Your task to perform on an android device: turn on bluetooth scan Image 0: 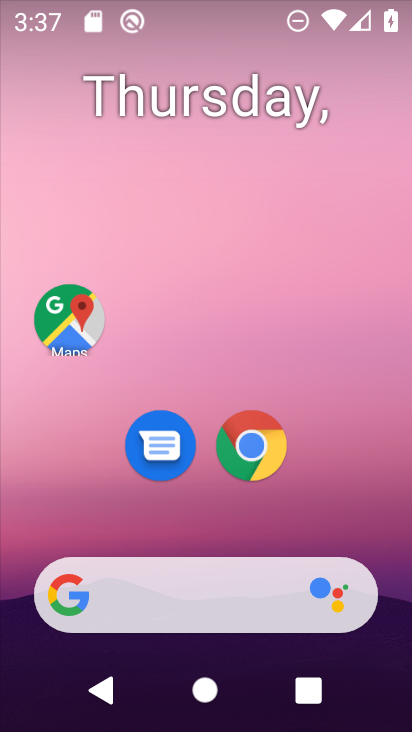
Step 0: drag from (329, 494) to (241, 110)
Your task to perform on an android device: turn on bluetooth scan Image 1: 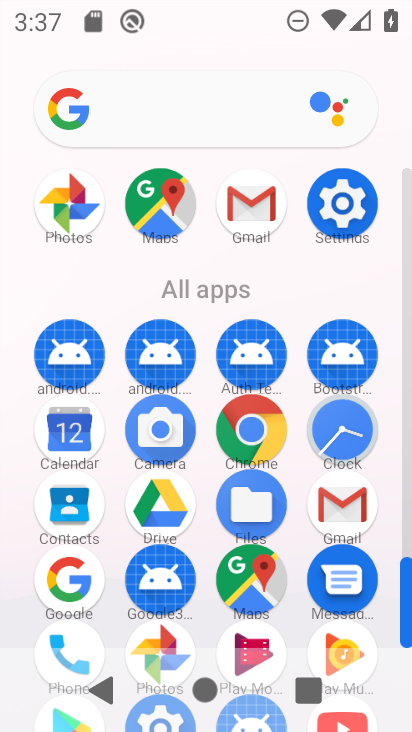
Step 1: click (338, 202)
Your task to perform on an android device: turn on bluetooth scan Image 2: 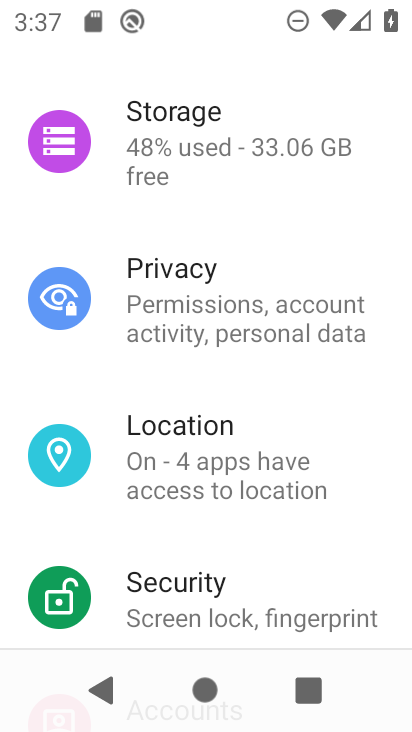
Step 2: click (193, 424)
Your task to perform on an android device: turn on bluetooth scan Image 3: 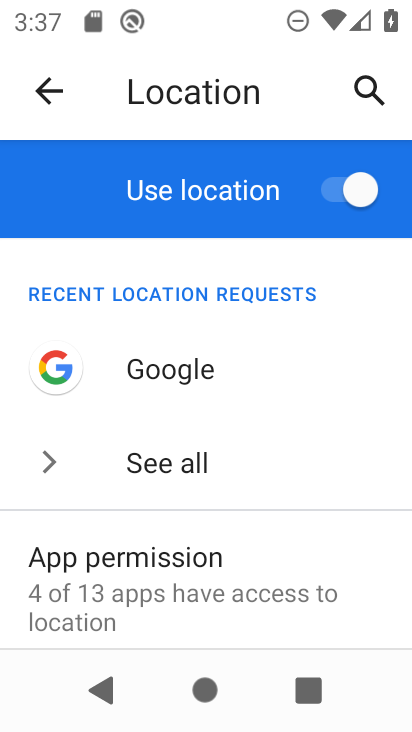
Step 3: drag from (187, 600) to (290, 415)
Your task to perform on an android device: turn on bluetooth scan Image 4: 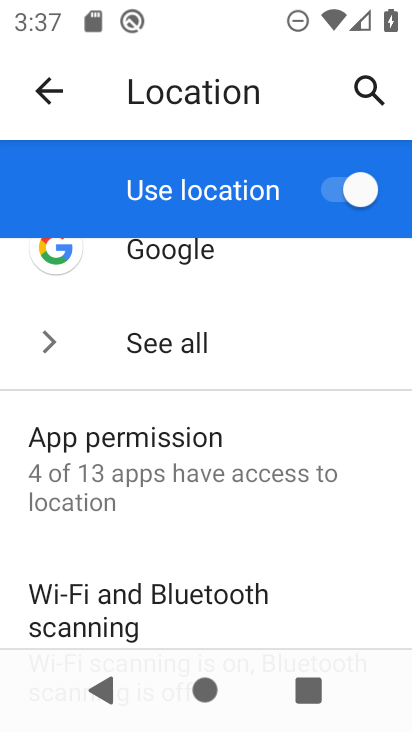
Step 4: click (187, 596)
Your task to perform on an android device: turn on bluetooth scan Image 5: 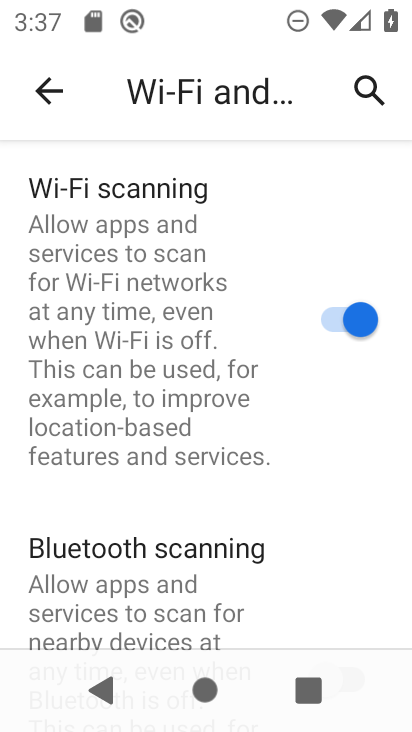
Step 5: drag from (313, 552) to (374, 220)
Your task to perform on an android device: turn on bluetooth scan Image 6: 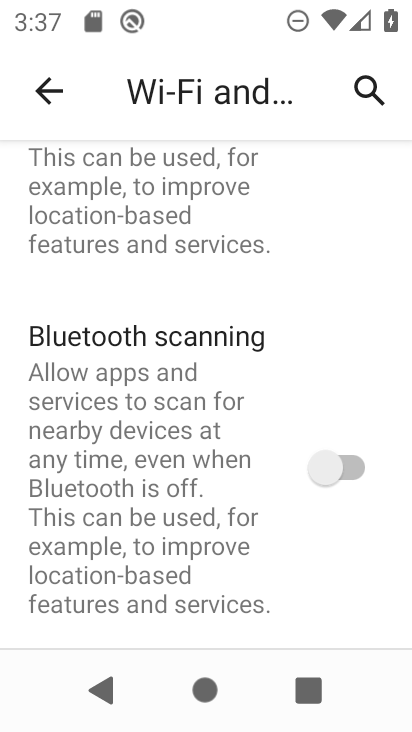
Step 6: click (326, 459)
Your task to perform on an android device: turn on bluetooth scan Image 7: 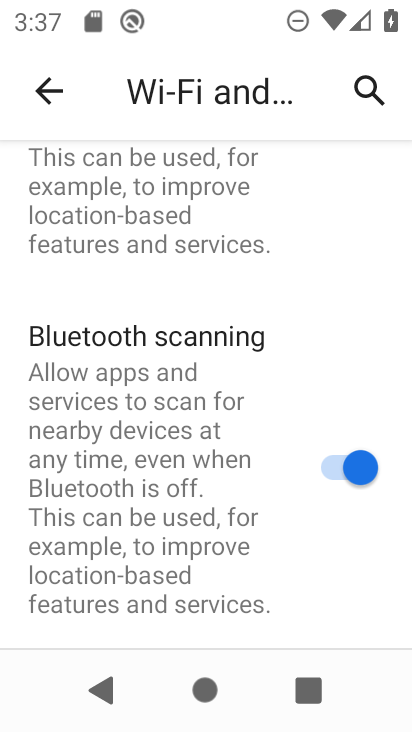
Step 7: task complete